Your task to perform on an android device: Empty the shopping cart on costco. Search for macbook air on costco, select the first entry, and add it to the cart. Image 0: 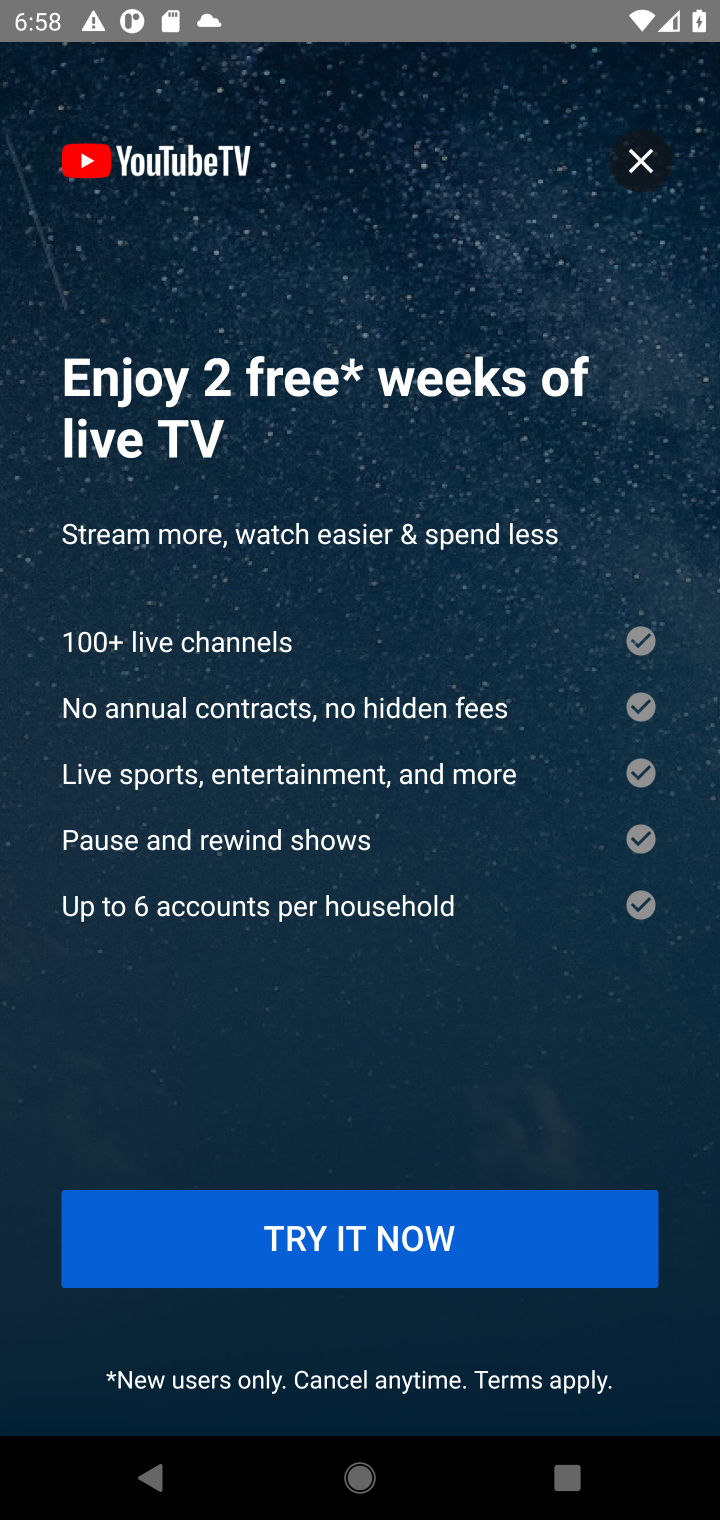
Step 0: press home button
Your task to perform on an android device: Empty the shopping cart on costco. Search for macbook air on costco, select the first entry, and add it to the cart. Image 1: 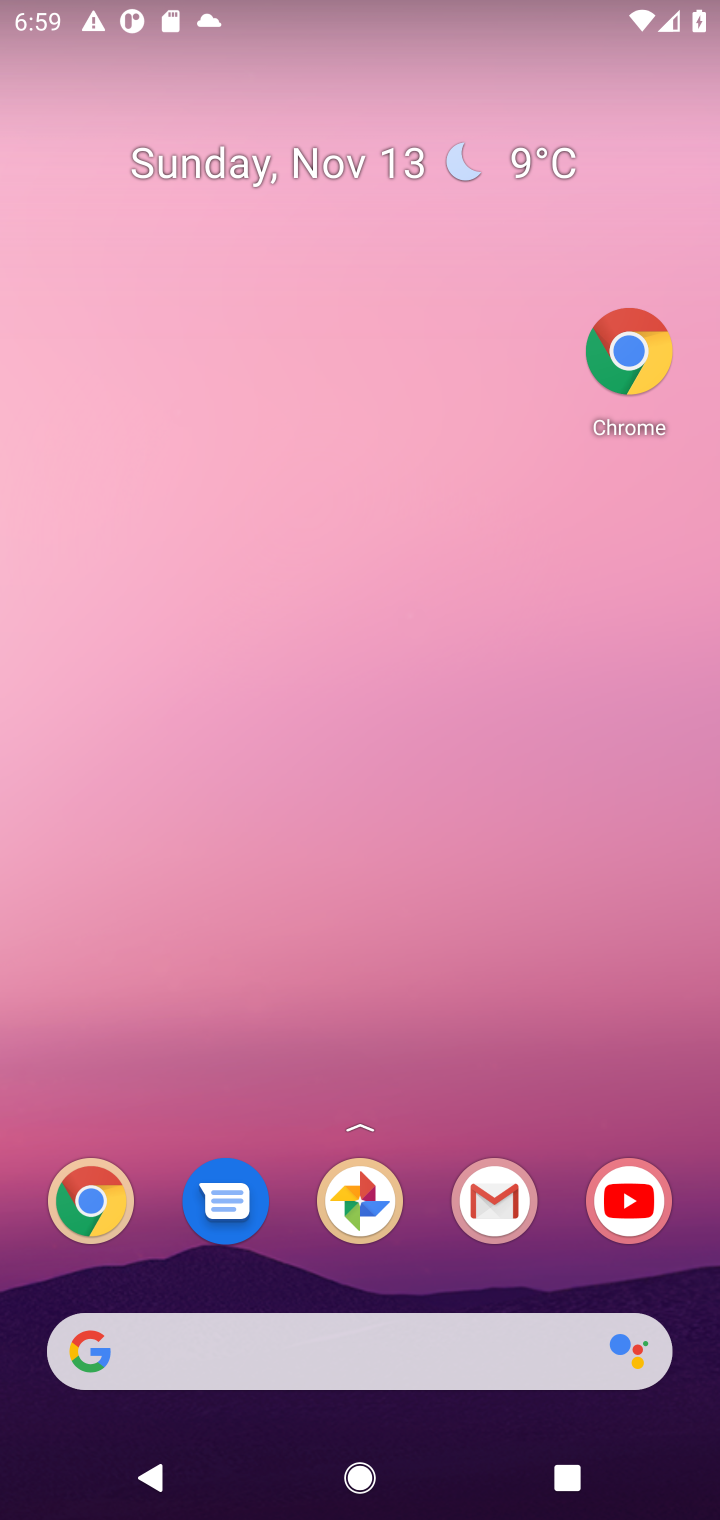
Step 1: drag from (435, 1307) to (410, 280)
Your task to perform on an android device: Empty the shopping cart on costco. Search for macbook air on costco, select the first entry, and add it to the cart. Image 2: 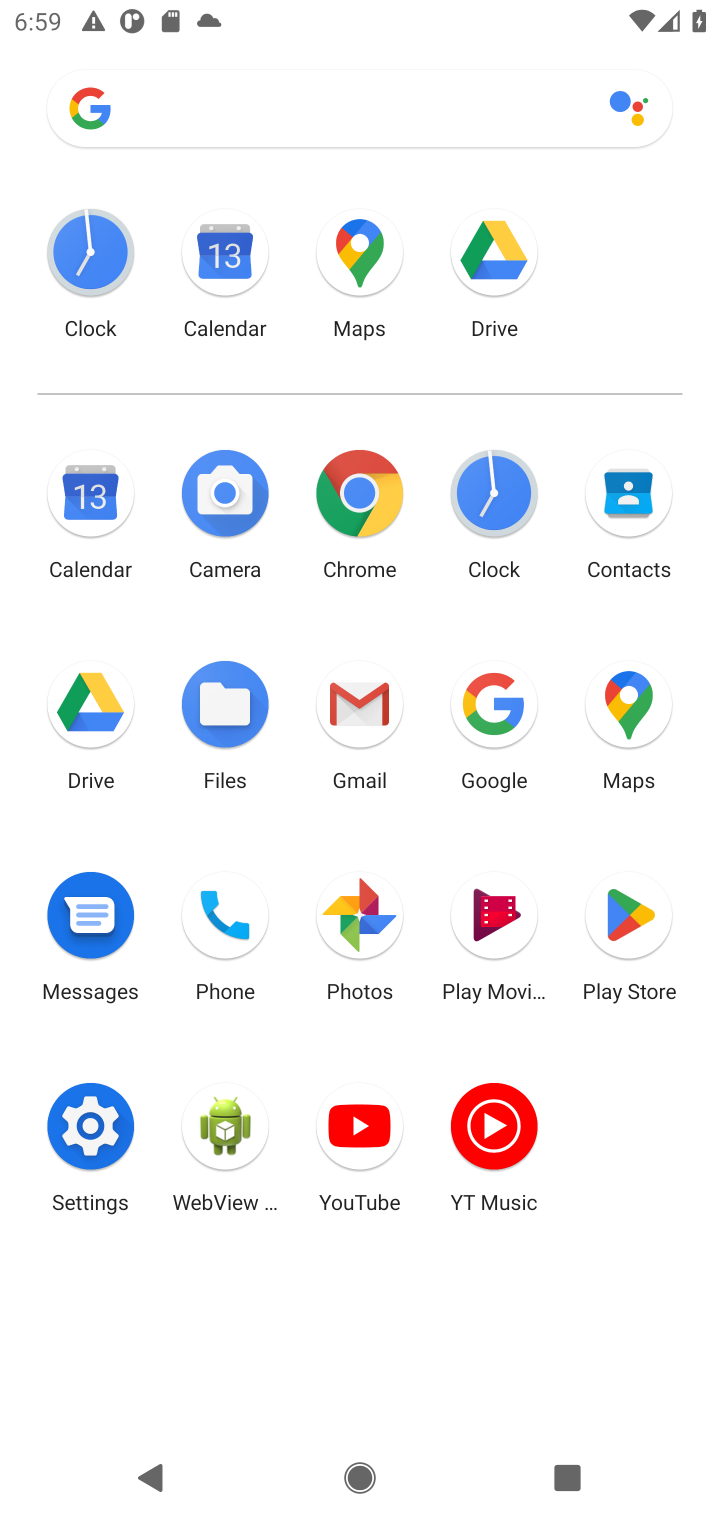
Step 2: click (359, 484)
Your task to perform on an android device: Empty the shopping cart on costco. Search for macbook air on costco, select the first entry, and add it to the cart. Image 3: 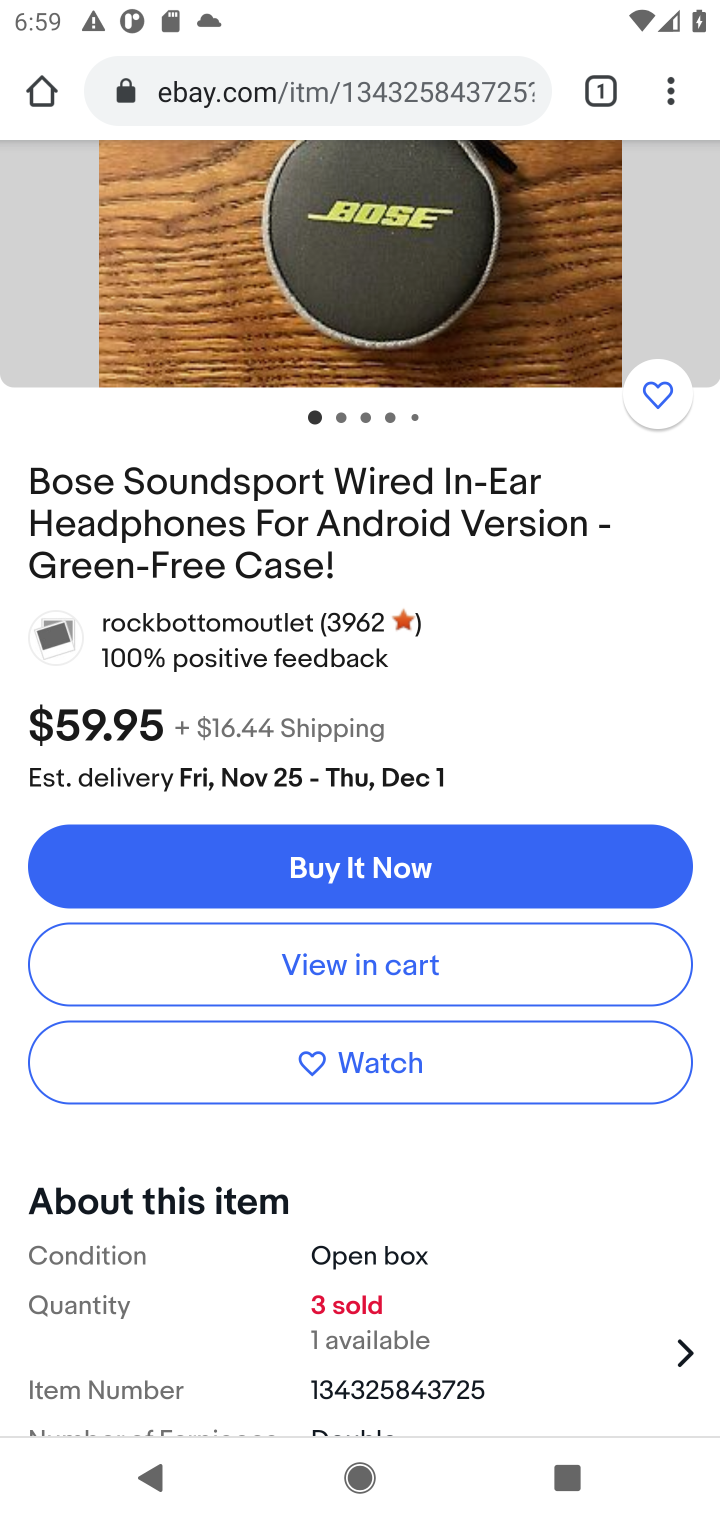
Step 3: click (332, 84)
Your task to perform on an android device: Empty the shopping cart on costco. Search for macbook air on costco, select the first entry, and add it to the cart. Image 4: 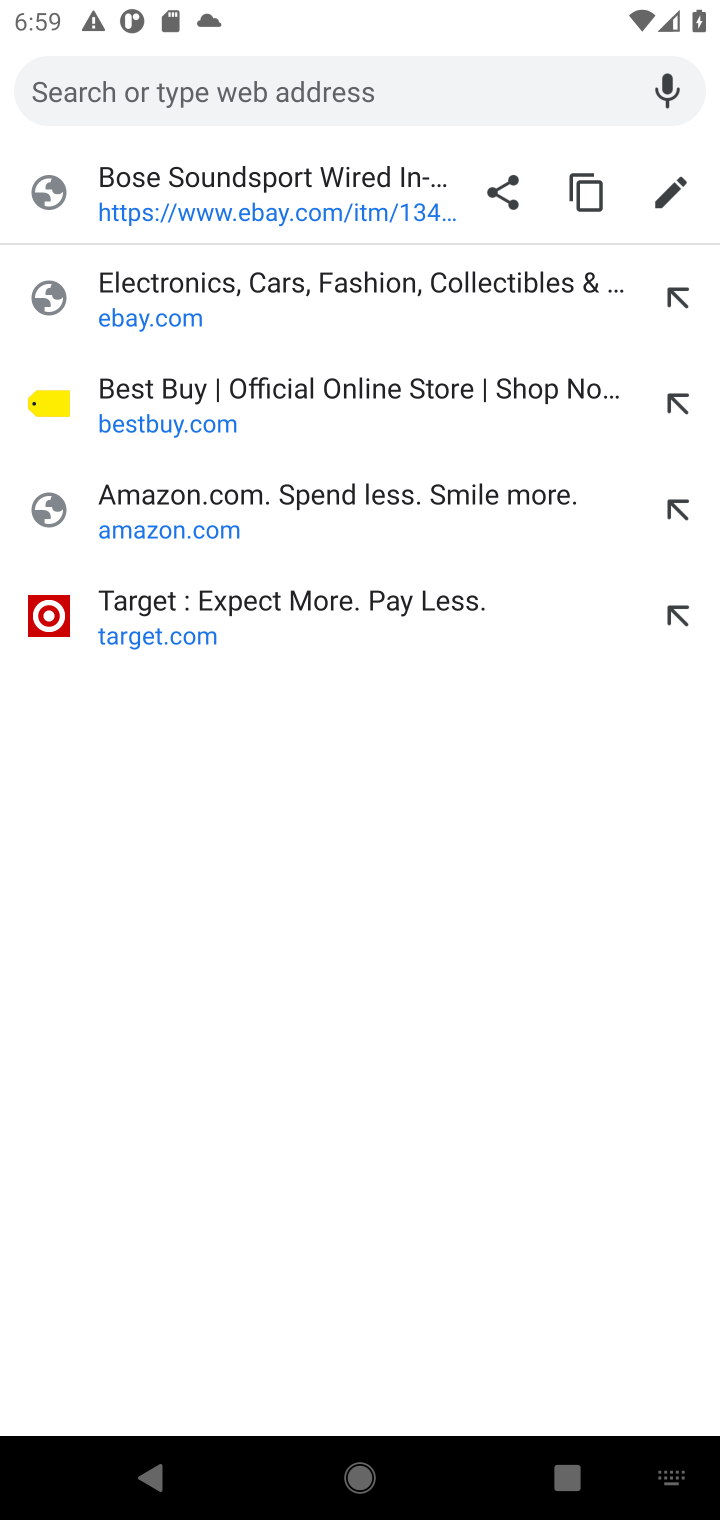
Step 4: type "costco.com"
Your task to perform on an android device: Empty the shopping cart on costco. Search for macbook air on costco, select the first entry, and add it to the cart. Image 5: 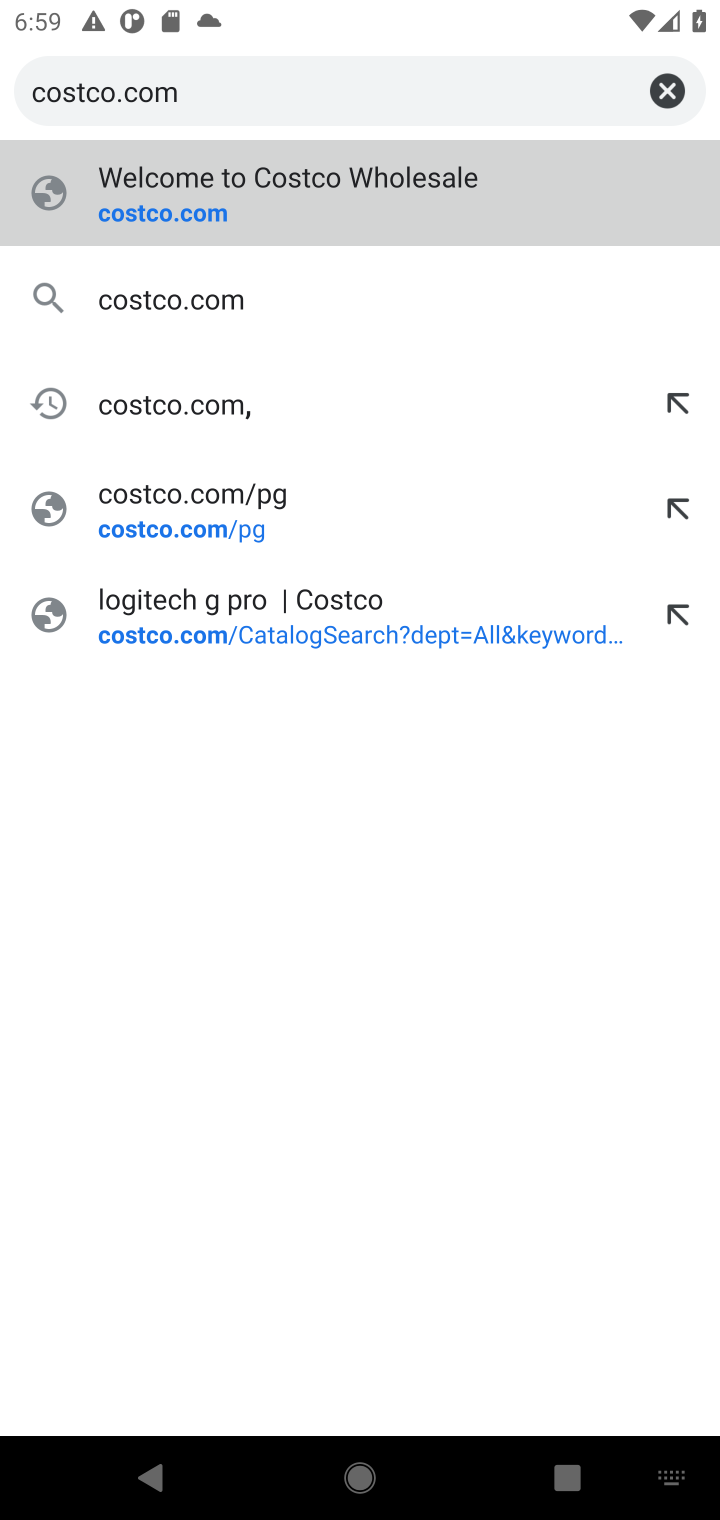
Step 5: press enter
Your task to perform on an android device: Empty the shopping cart on costco. Search for macbook air on costco, select the first entry, and add it to the cart. Image 6: 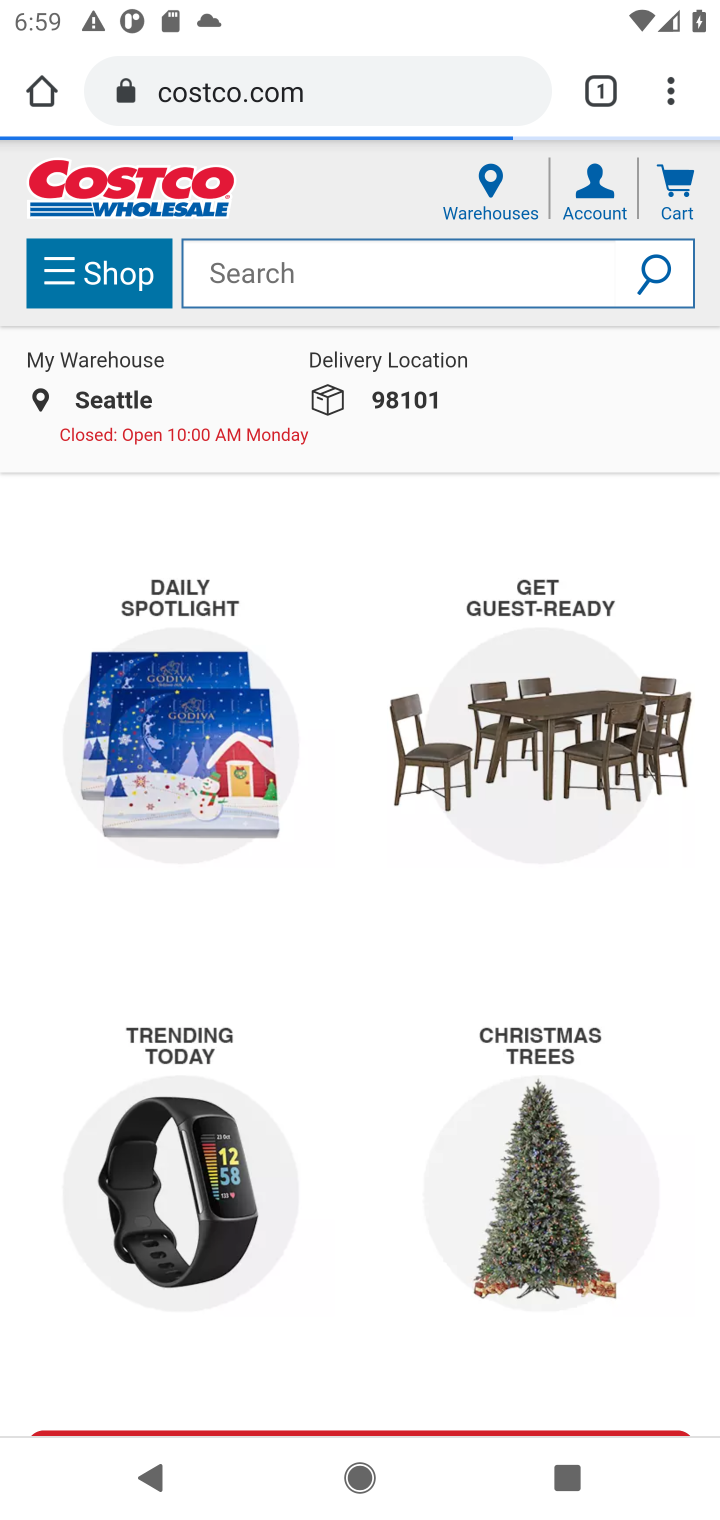
Step 6: click (685, 180)
Your task to perform on an android device: Empty the shopping cart on costco. Search for macbook air on costco, select the first entry, and add it to the cart. Image 7: 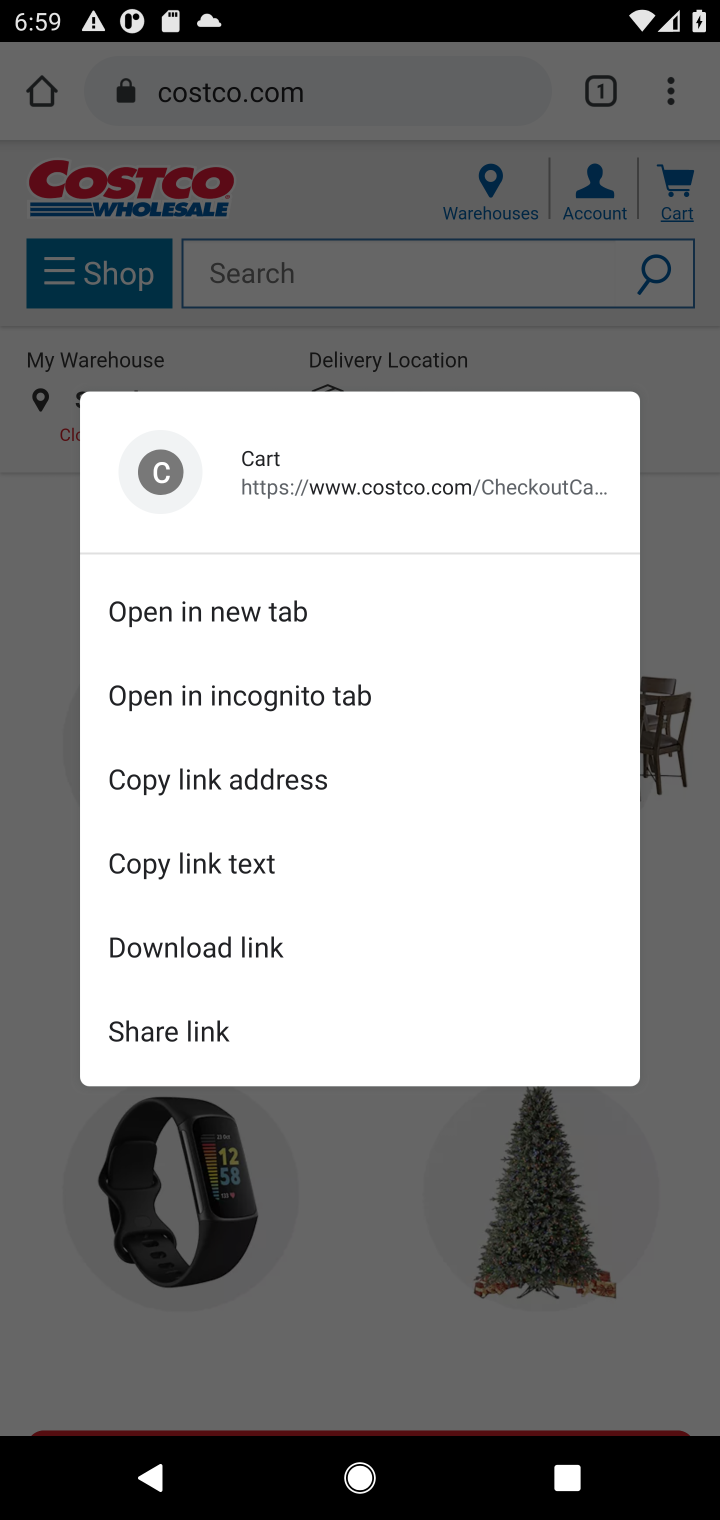
Step 7: click (388, 296)
Your task to perform on an android device: Empty the shopping cart on costco. Search for macbook air on costco, select the first entry, and add it to the cart. Image 8: 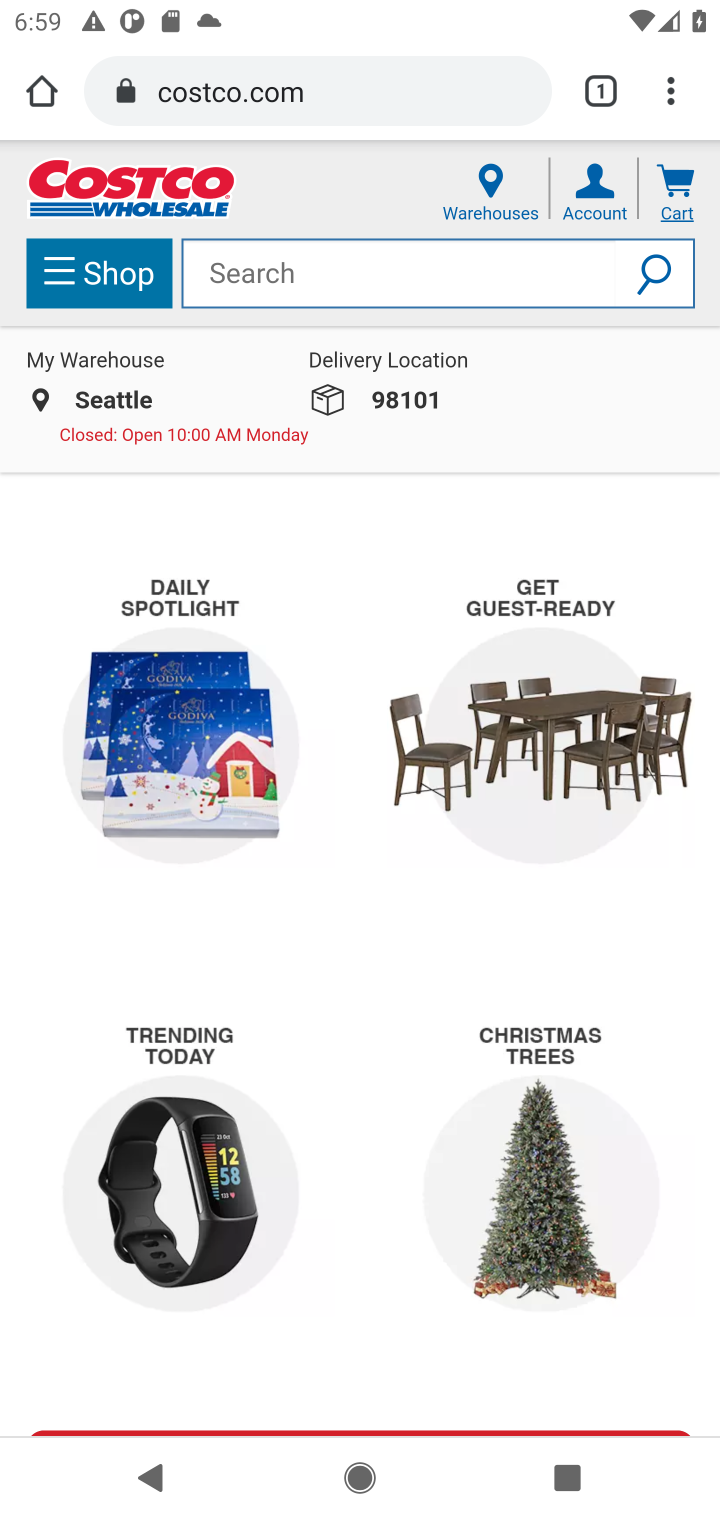
Step 8: click (677, 184)
Your task to perform on an android device: Empty the shopping cart on costco. Search for macbook air on costco, select the first entry, and add it to the cart. Image 9: 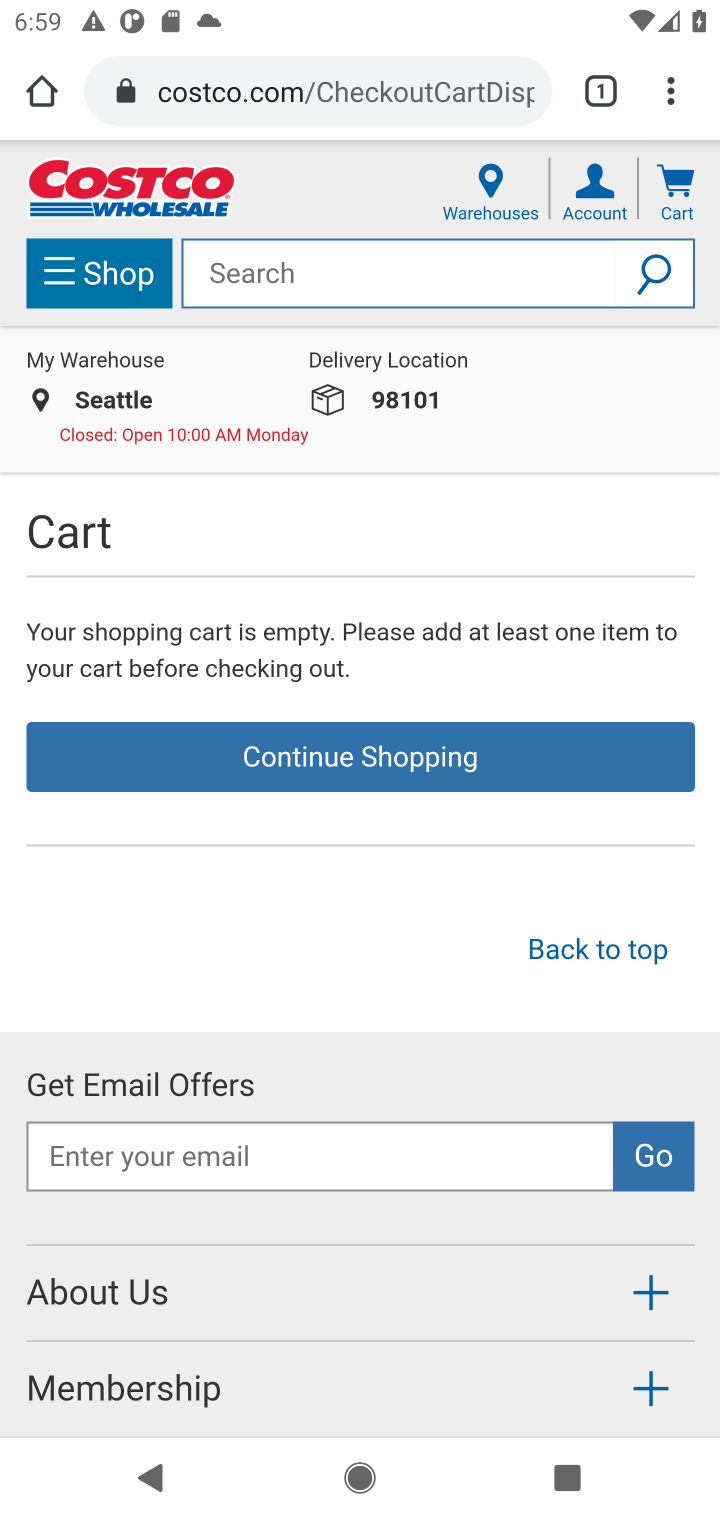
Step 9: click (484, 284)
Your task to perform on an android device: Empty the shopping cart on costco. Search for macbook air on costco, select the first entry, and add it to the cart. Image 10: 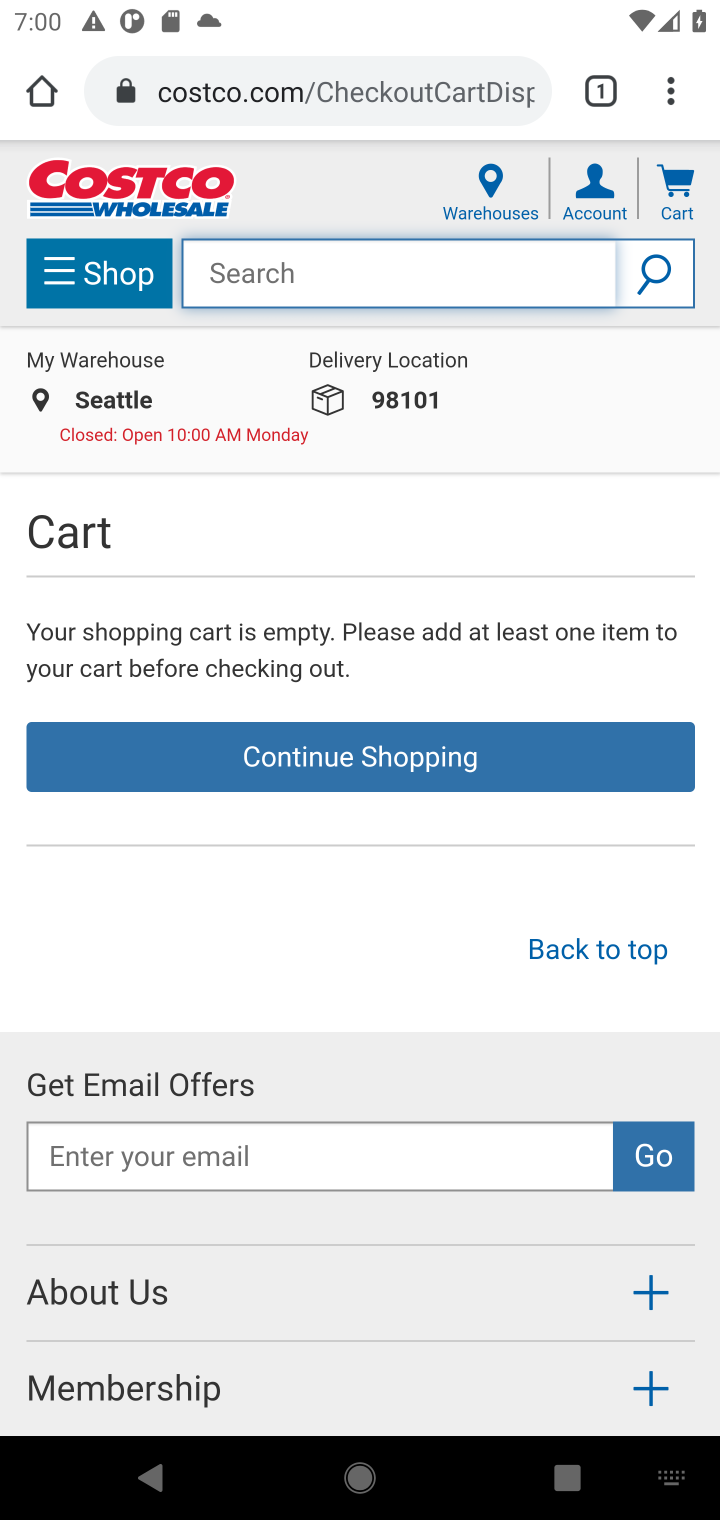
Step 10: type "macbook air"
Your task to perform on an android device: Empty the shopping cart on costco. Search for macbook air on costco, select the first entry, and add it to the cart. Image 11: 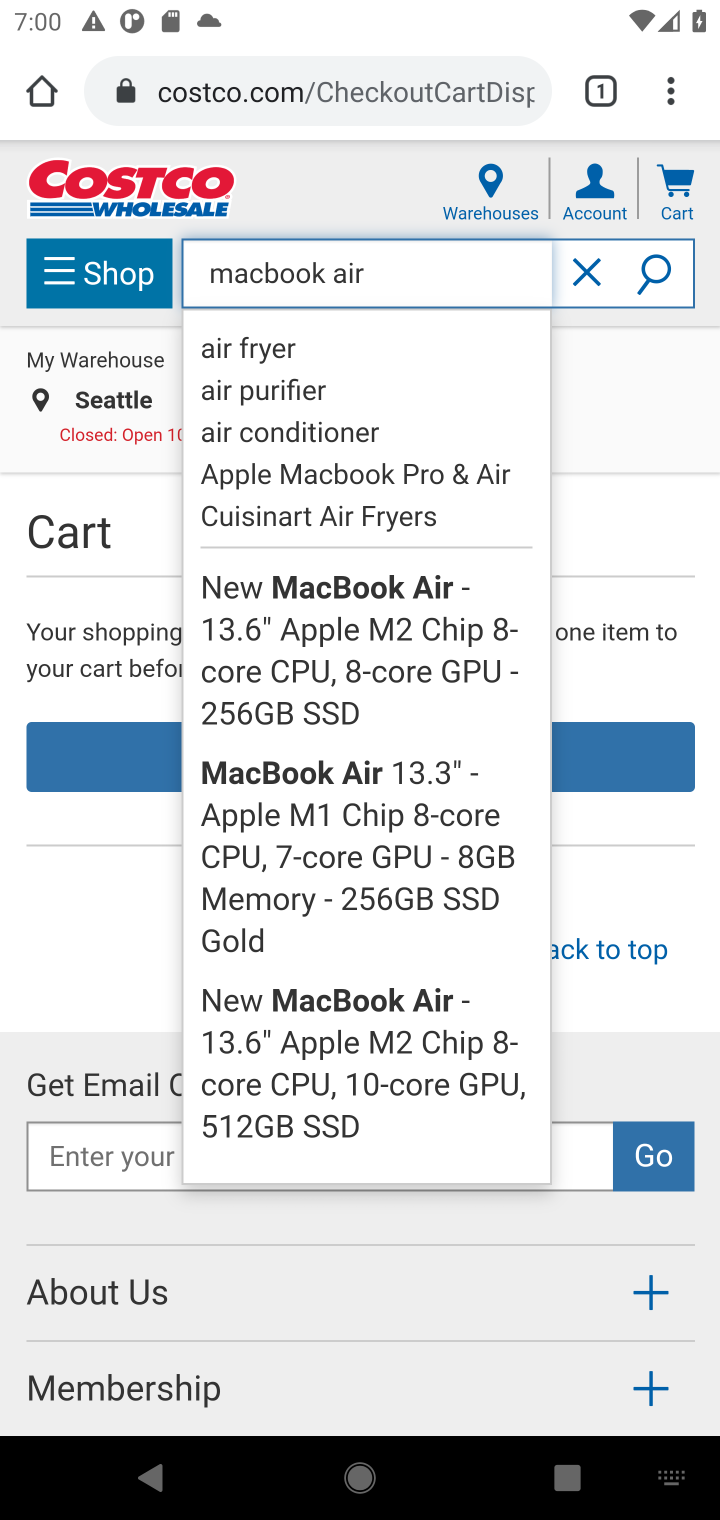
Step 11: press enter
Your task to perform on an android device: Empty the shopping cart on costco. Search for macbook air on costco, select the first entry, and add it to the cart. Image 12: 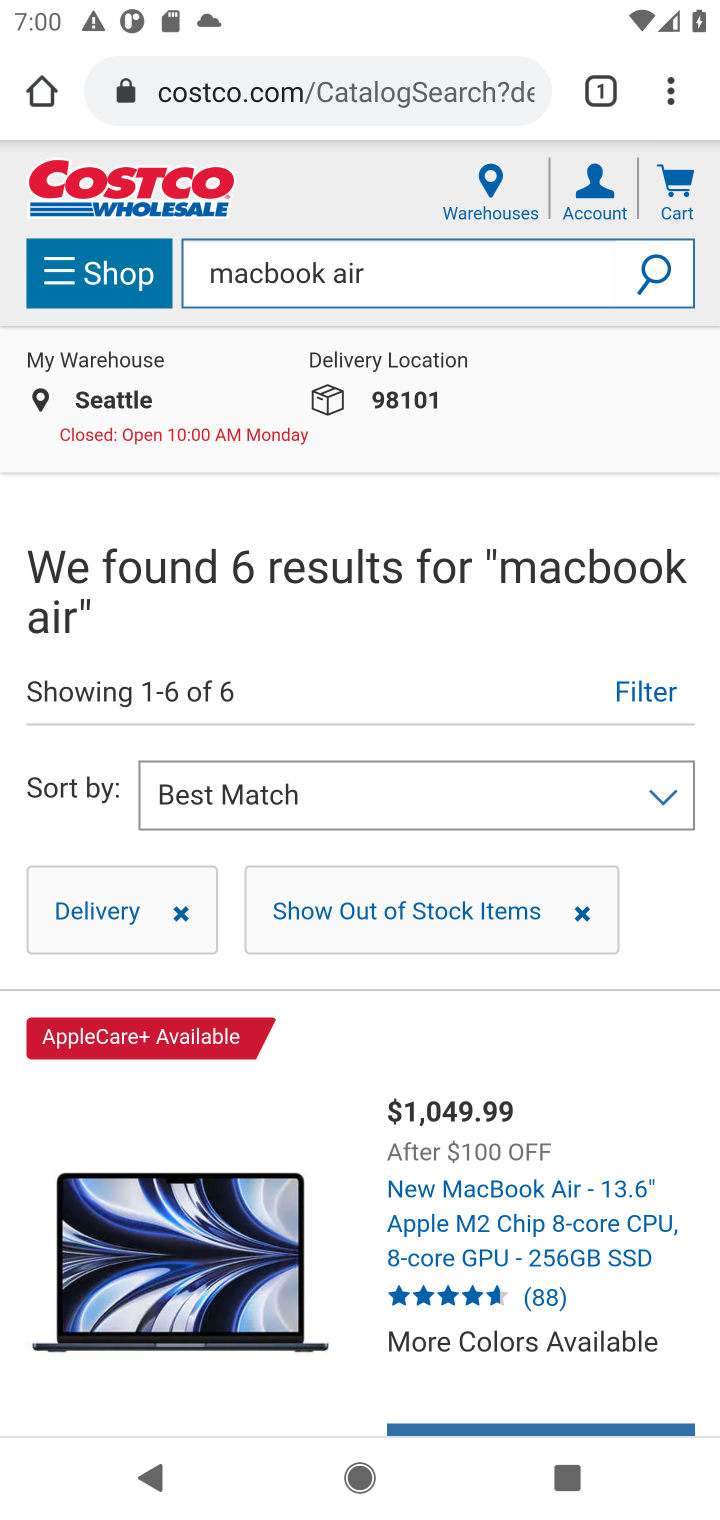
Step 12: drag from (562, 1266) to (519, 1370)
Your task to perform on an android device: Empty the shopping cart on costco. Search for macbook air on costco, select the first entry, and add it to the cart. Image 13: 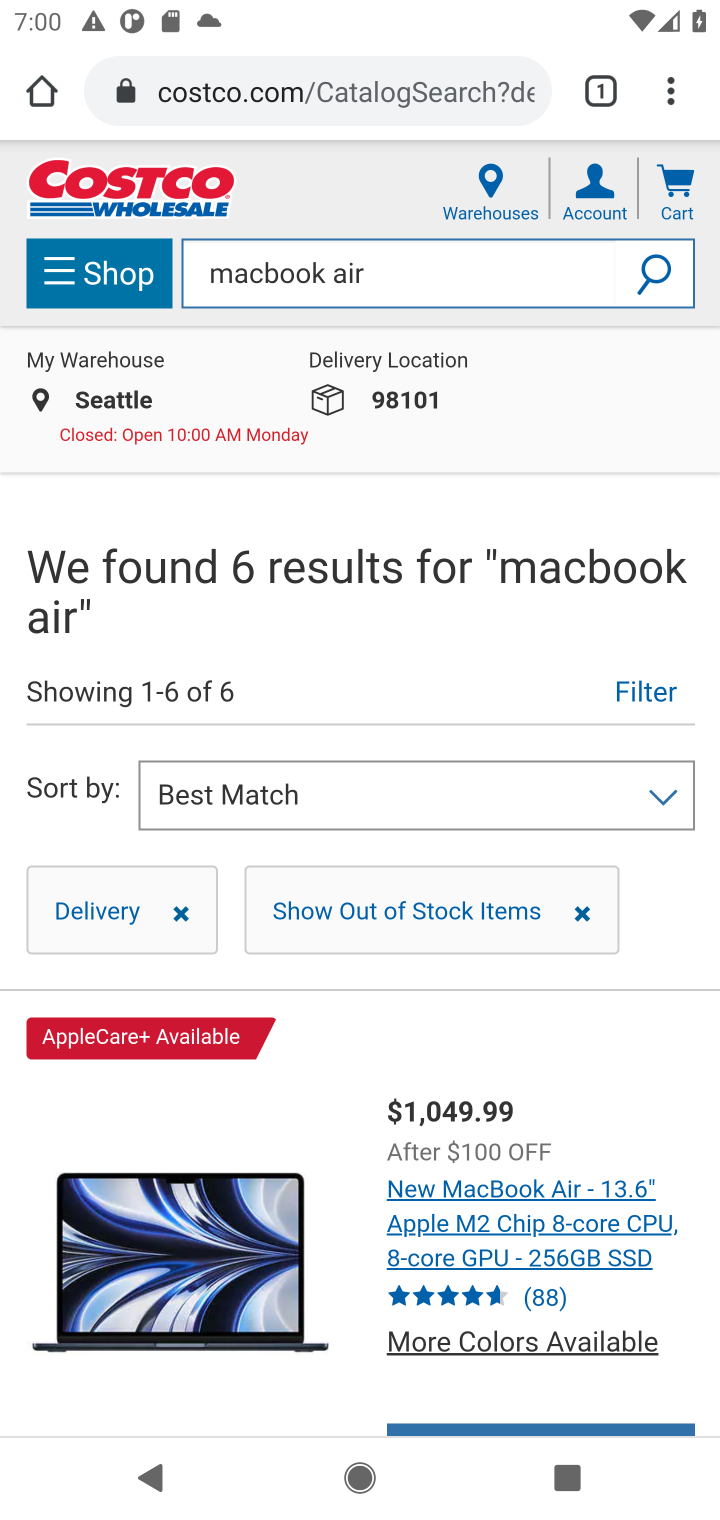
Step 13: click (509, 1224)
Your task to perform on an android device: Empty the shopping cart on costco. Search for macbook air on costco, select the first entry, and add it to the cart. Image 14: 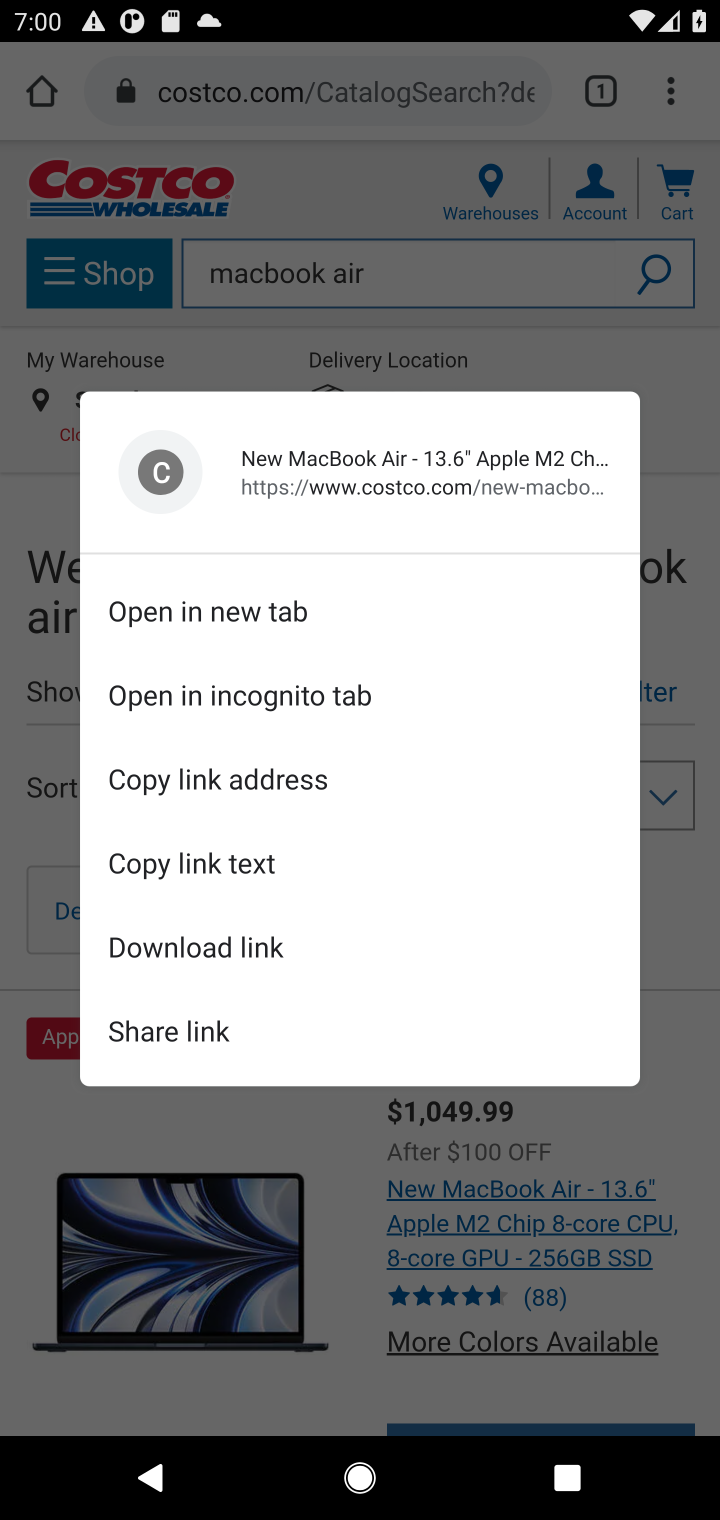
Step 14: click (509, 1224)
Your task to perform on an android device: Empty the shopping cart on costco. Search for macbook air on costco, select the first entry, and add it to the cart. Image 15: 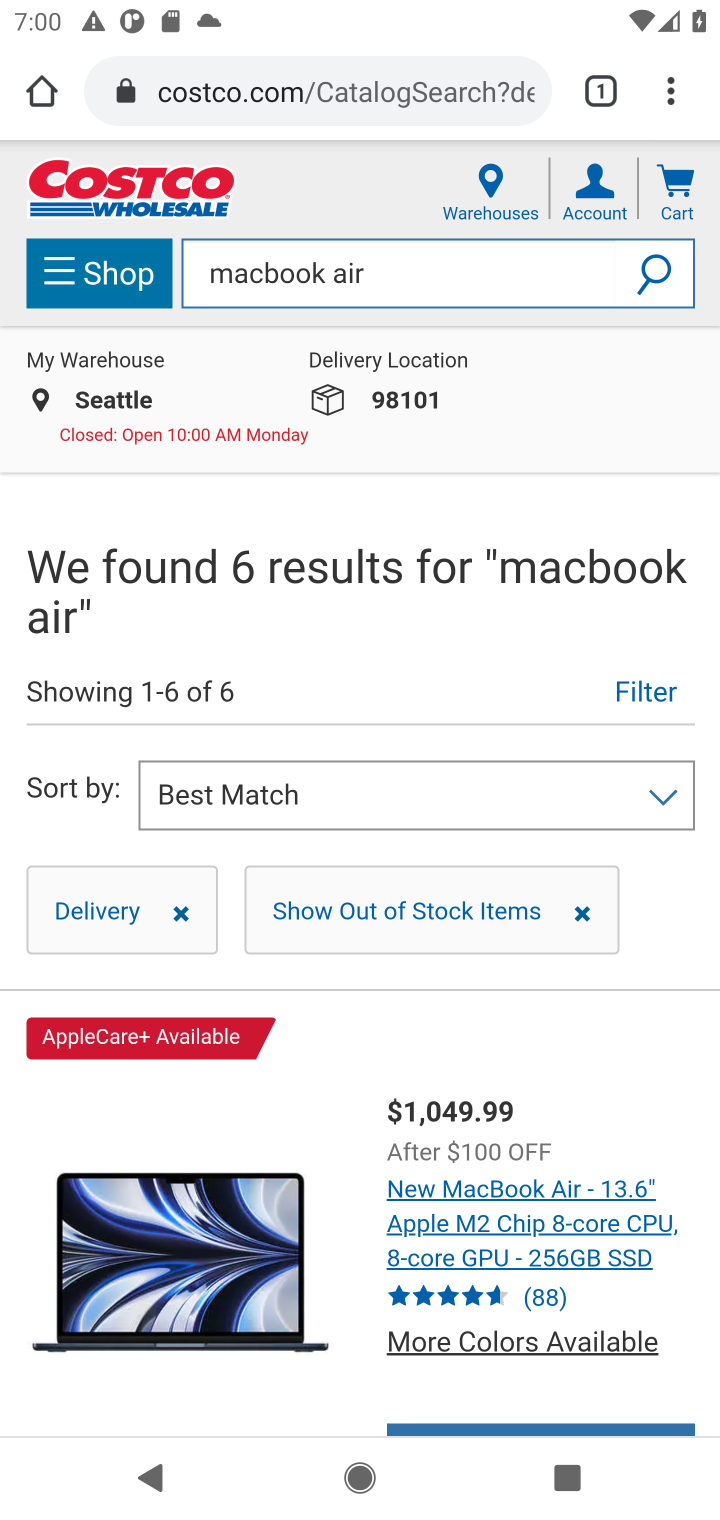
Step 15: click (509, 1224)
Your task to perform on an android device: Empty the shopping cart on costco. Search for macbook air on costco, select the first entry, and add it to the cart. Image 16: 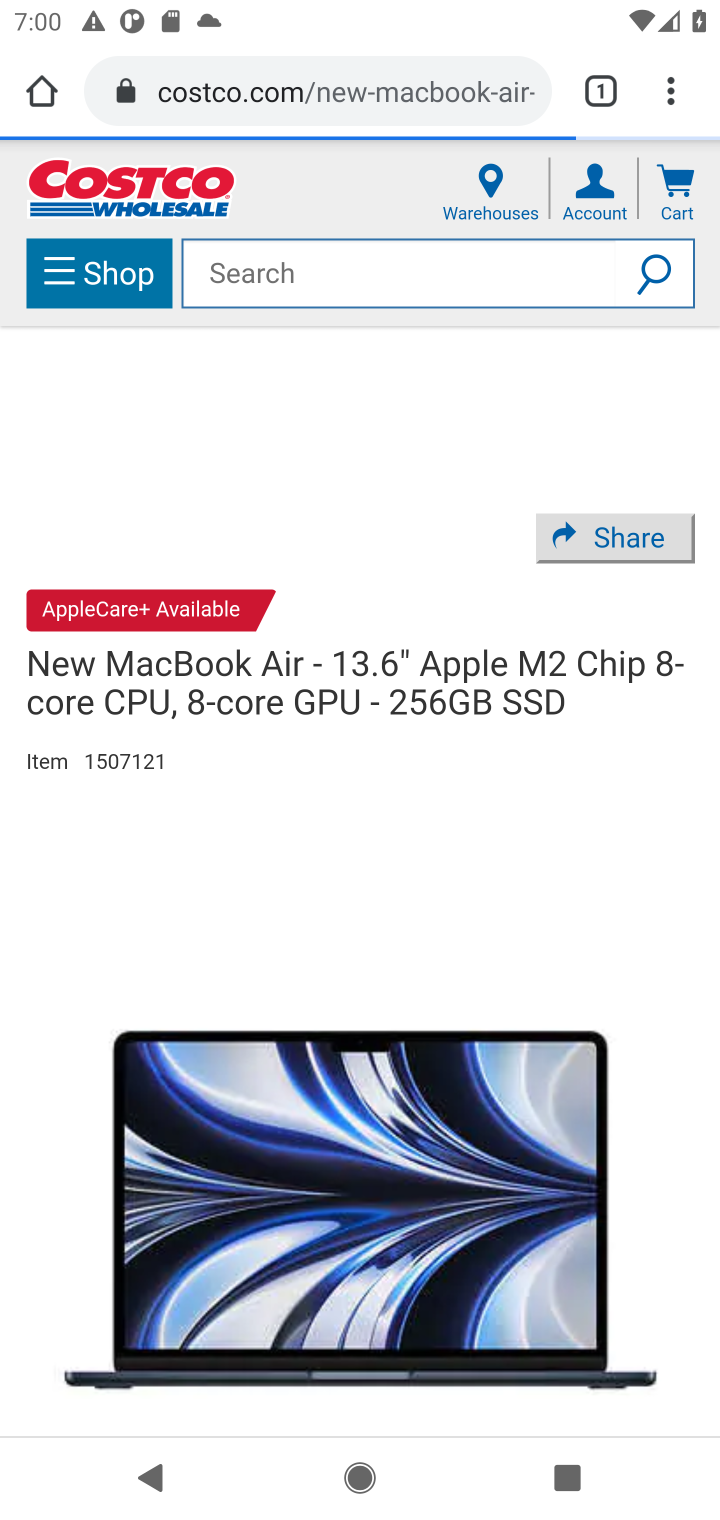
Step 16: drag from (509, 1224) to (557, 205)
Your task to perform on an android device: Empty the shopping cart on costco. Search for macbook air on costco, select the first entry, and add it to the cart. Image 17: 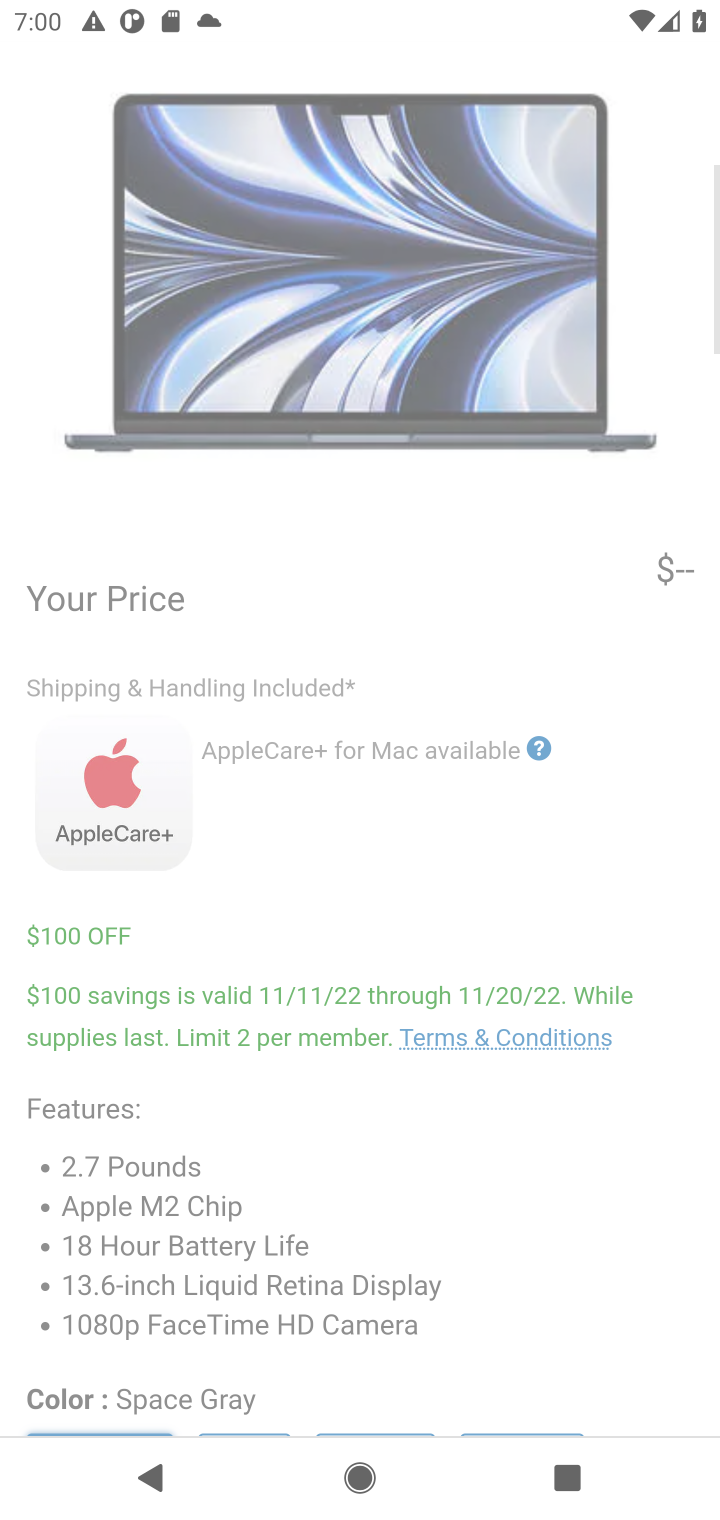
Step 17: drag from (494, 1136) to (576, 277)
Your task to perform on an android device: Empty the shopping cart on costco. Search for macbook air on costco, select the first entry, and add it to the cart. Image 18: 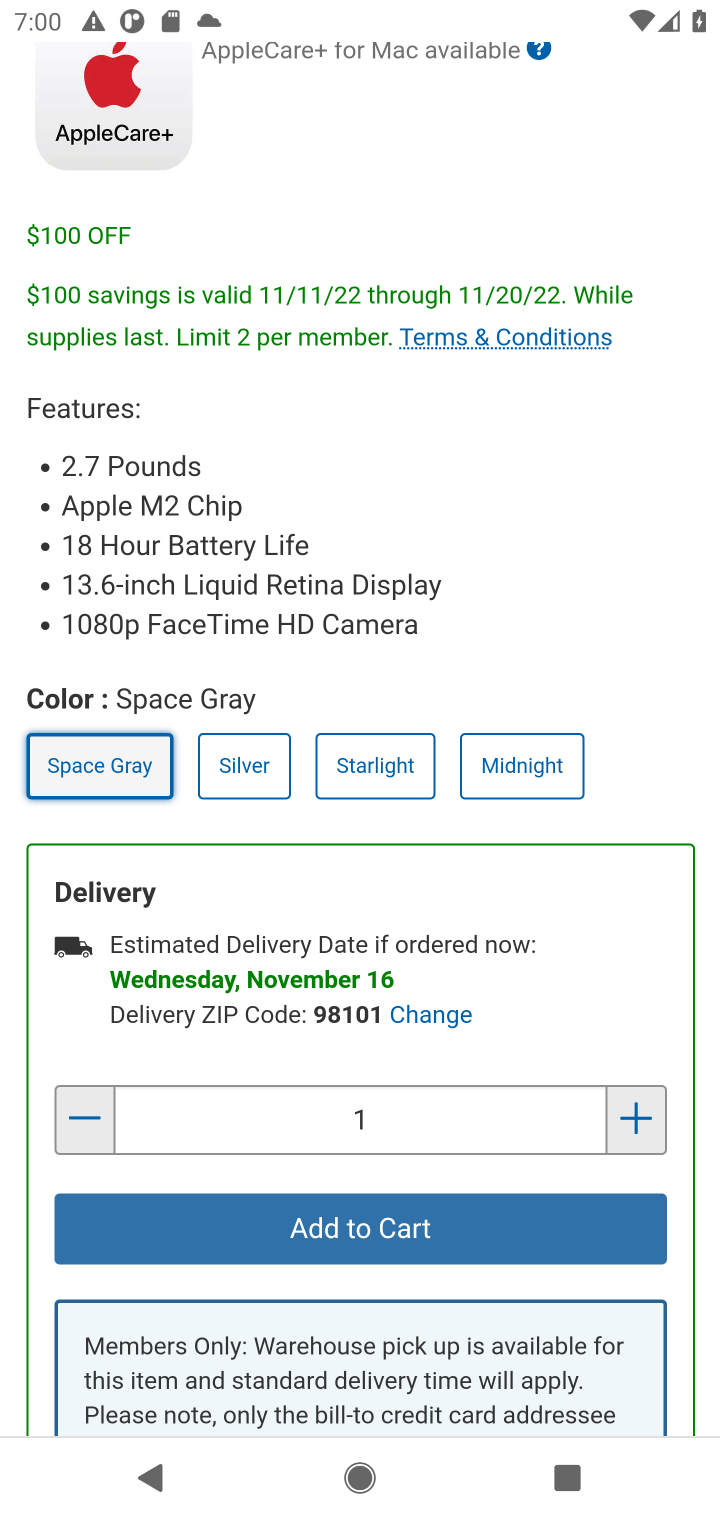
Step 18: click (414, 1227)
Your task to perform on an android device: Empty the shopping cart on costco. Search for macbook air on costco, select the first entry, and add it to the cart. Image 19: 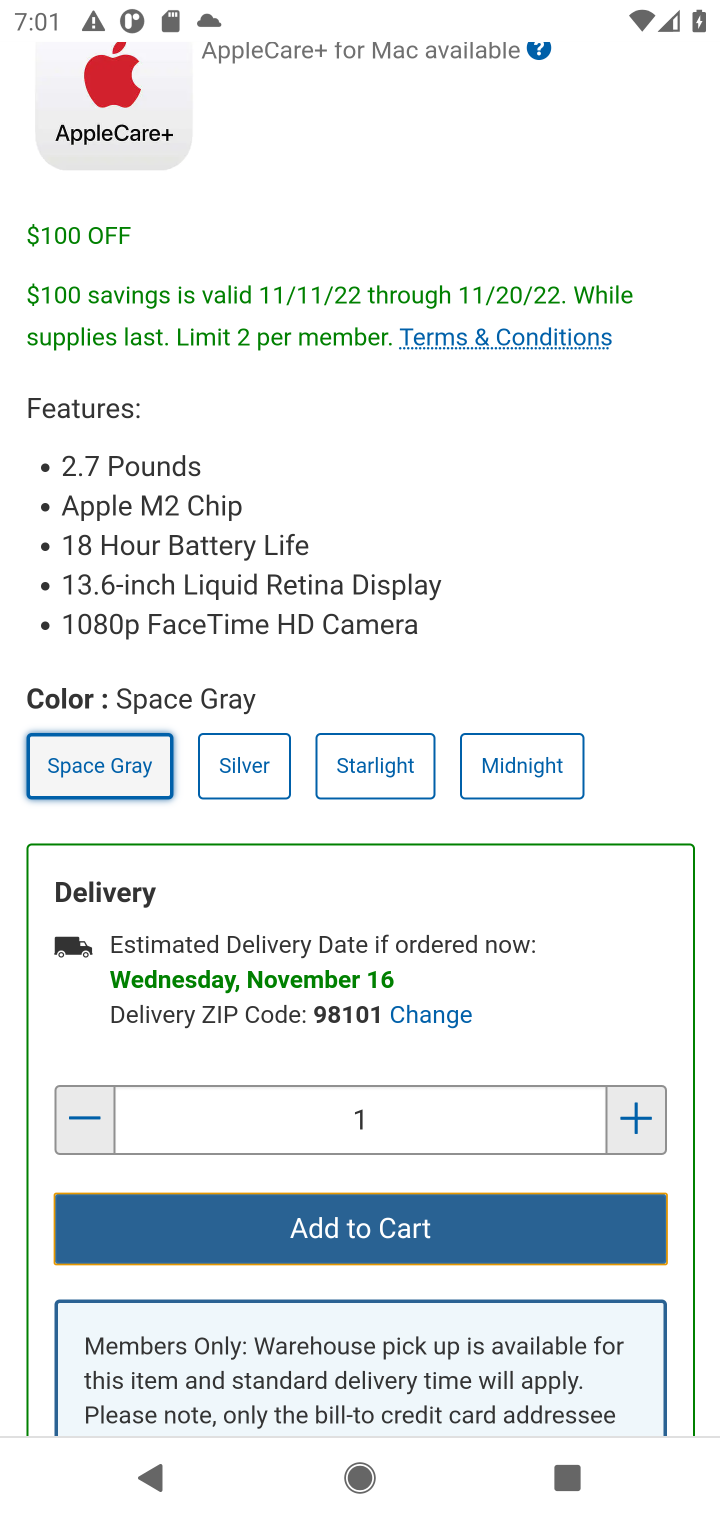
Step 19: click (395, 1229)
Your task to perform on an android device: Empty the shopping cart on costco. Search for macbook air on costco, select the first entry, and add it to the cart. Image 20: 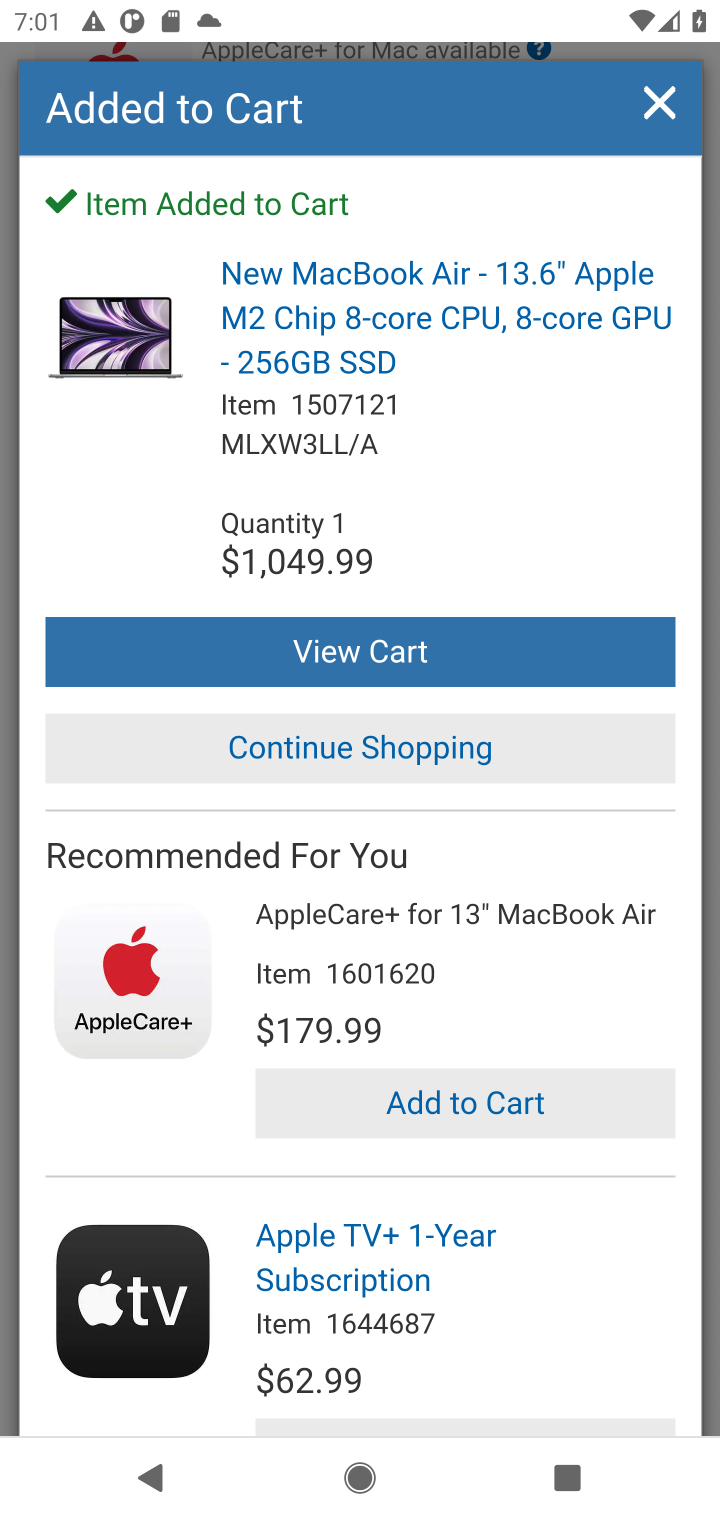
Step 20: task complete